Your task to perform on an android device: toggle wifi Image 0: 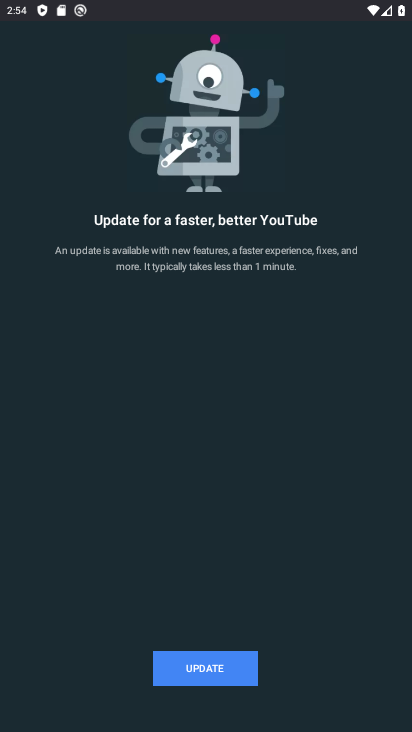
Step 0: press home button
Your task to perform on an android device: toggle wifi Image 1: 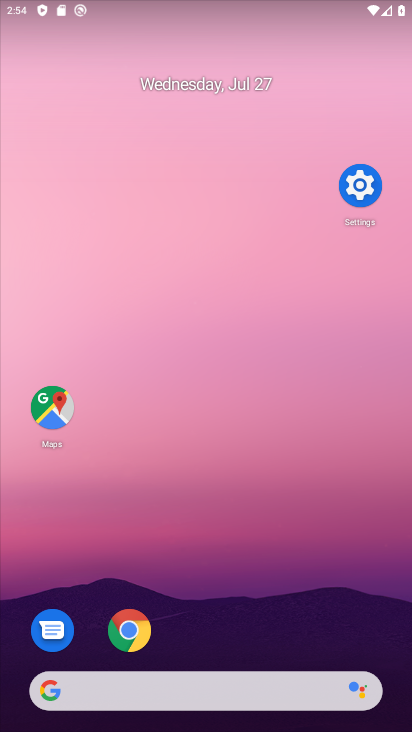
Step 1: drag from (194, 6) to (279, 475)
Your task to perform on an android device: toggle wifi Image 2: 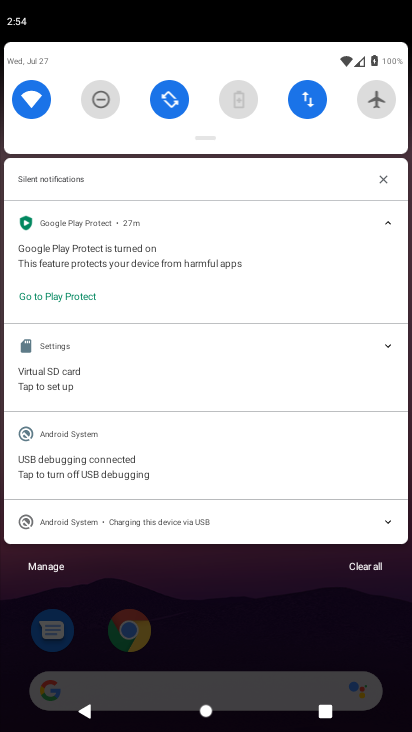
Step 2: click (31, 102)
Your task to perform on an android device: toggle wifi Image 3: 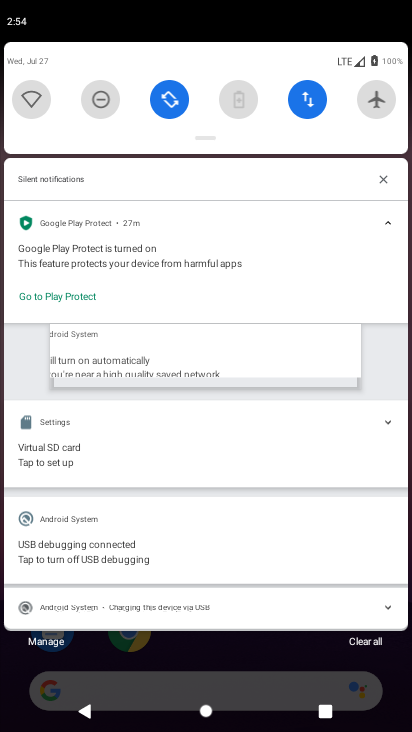
Step 3: task complete